Your task to perform on an android device: Add "razer deathadder" to the cart on amazon.com Image 0: 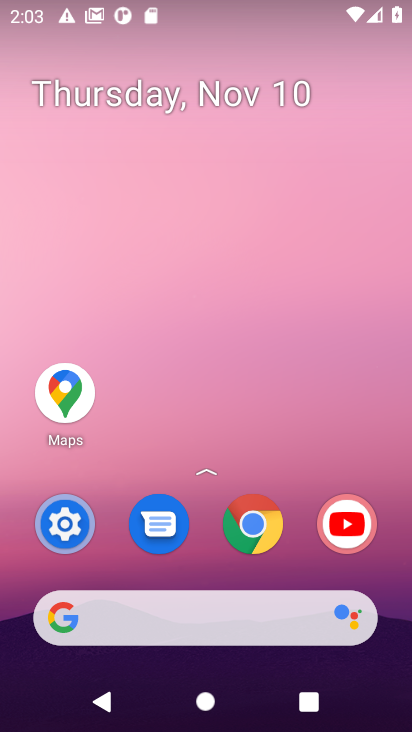
Step 0: click (246, 525)
Your task to perform on an android device: Add "razer deathadder" to the cart on amazon.com Image 1: 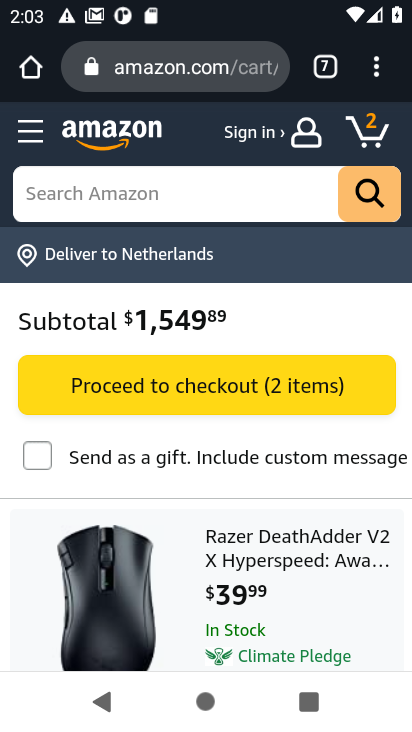
Step 1: task complete